Your task to perform on an android device: change the clock display to digital Image 0: 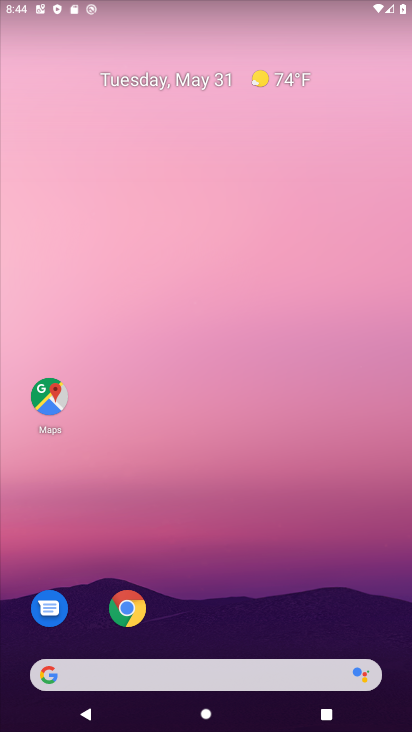
Step 0: click (217, 619)
Your task to perform on an android device: change the clock display to digital Image 1: 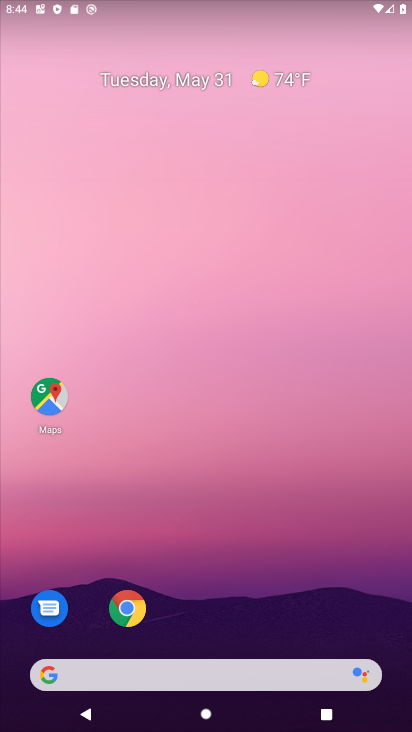
Step 1: drag from (217, 619) to (171, 59)
Your task to perform on an android device: change the clock display to digital Image 2: 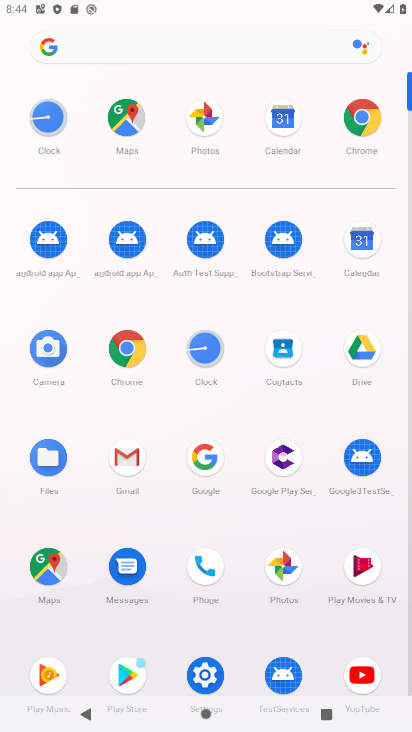
Step 2: click (212, 355)
Your task to perform on an android device: change the clock display to digital Image 3: 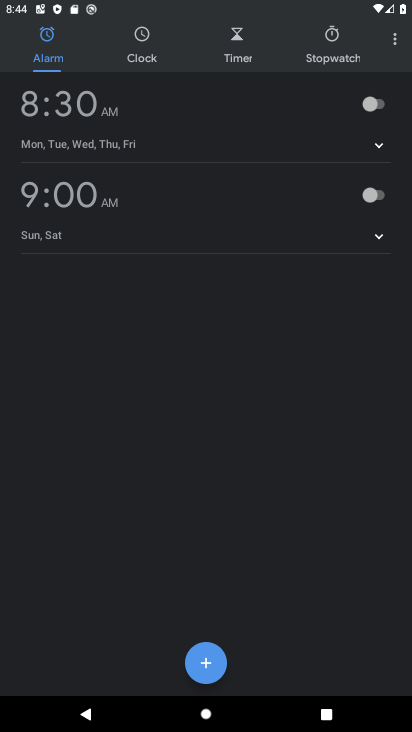
Step 3: click (386, 37)
Your task to perform on an android device: change the clock display to digital Image 4: 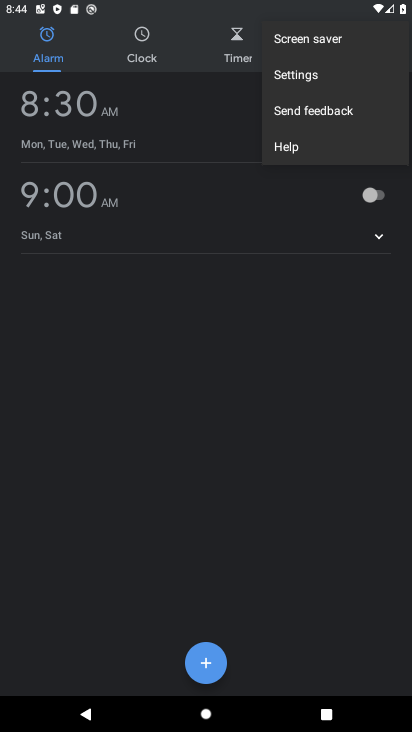
Step 4: click (288, 76)
Your task to perform on an android device: change the clock display to digital Image 5: 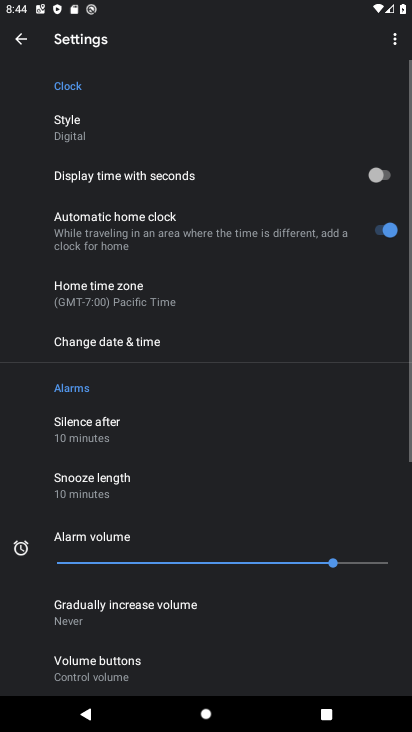
Step 5: click (83, 137)
Your task to perform on an android device: change the clock display to digital Image 6: 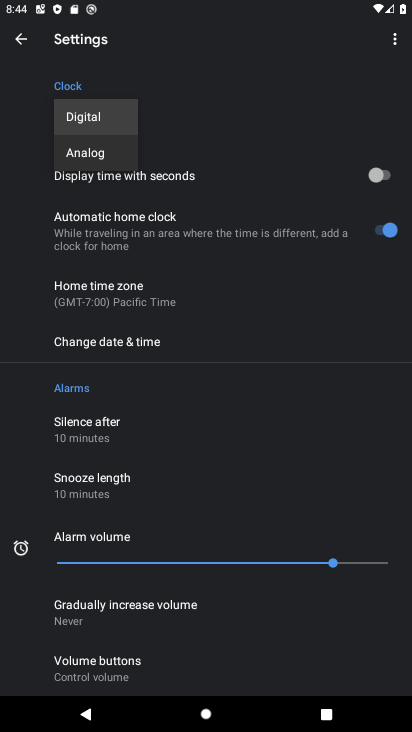
Step 6: click (81, 122)
Your task to perform on an android device: change the clock display to digital Image 7: 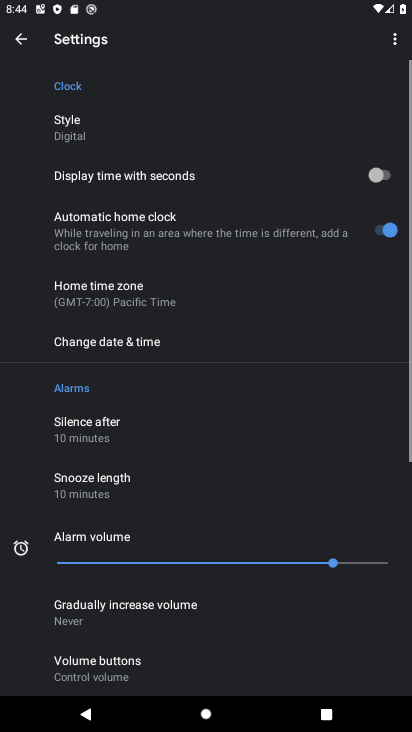
Step 7: task complete